Your task to perform on an android device: Go to settings Image 0: 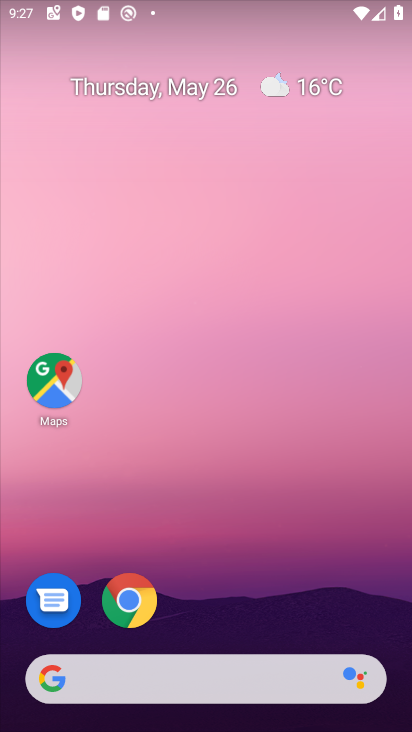
Step 0: drag from (199, 615) to (203, 166)
Your task to perform on an android device: Go to settings Image 1: 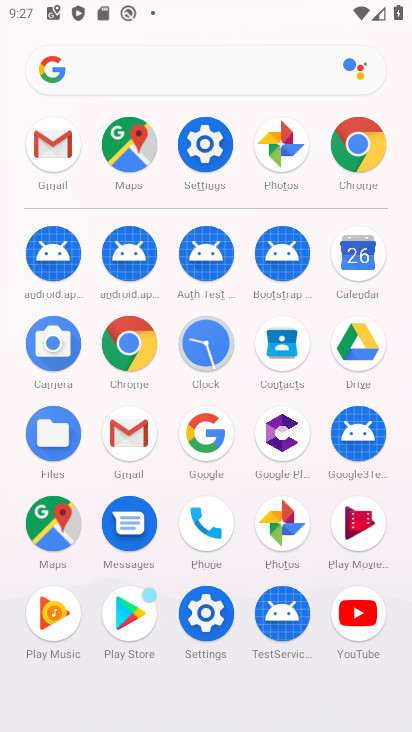
Step 1: click (210, 155)
Your task to perform on an android device: Go to settings Image 2: 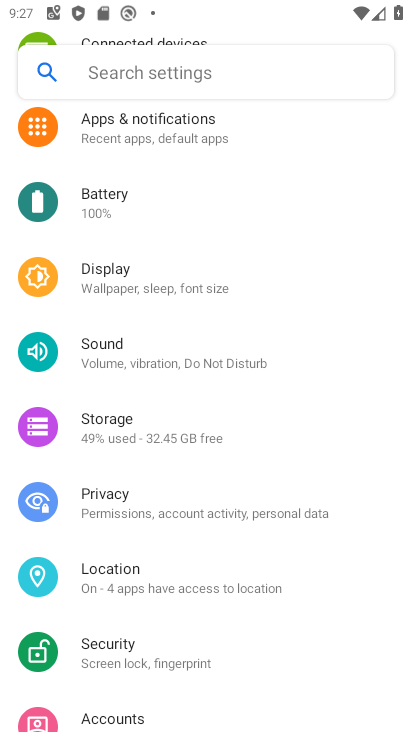
Step 2: task complete